Your task to perform on an android device: turn off location history Image 0: 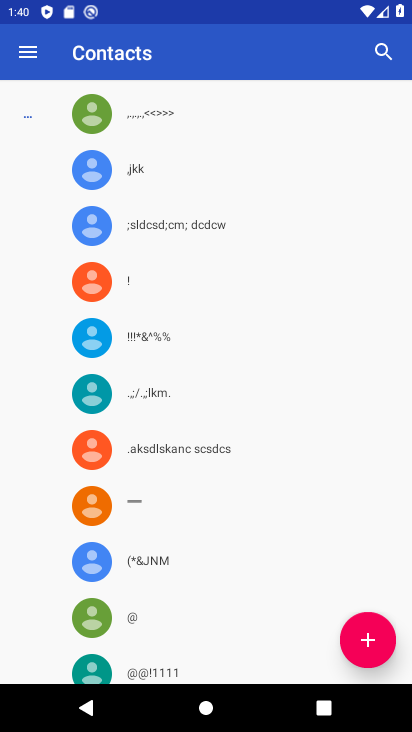
Step 0: press home button
Your task to perform on an android device: turn off location history Image 1: 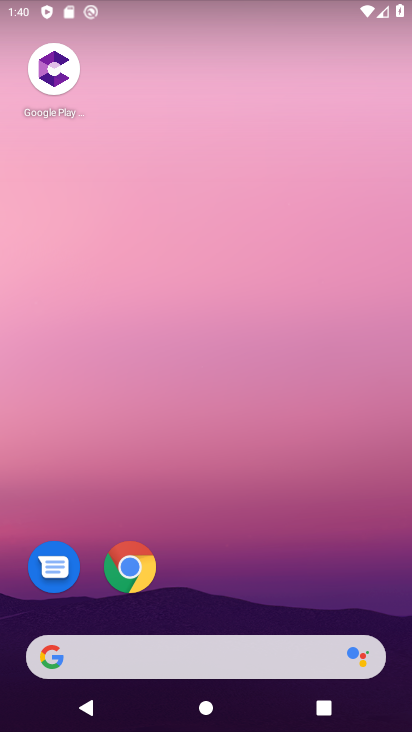
Step 1: drag from (219, 611) to (268, 209)
Your task to perform on an android device: turn off location history Image 2: 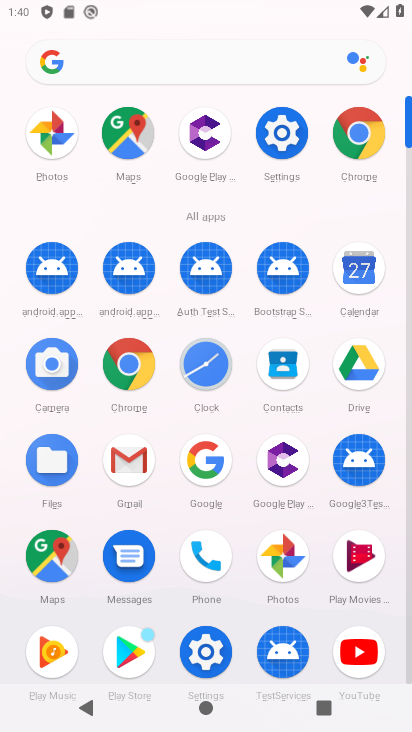
Step 2: click (280, 145)
Your task to perform on an android device: turn off location history Image 3: 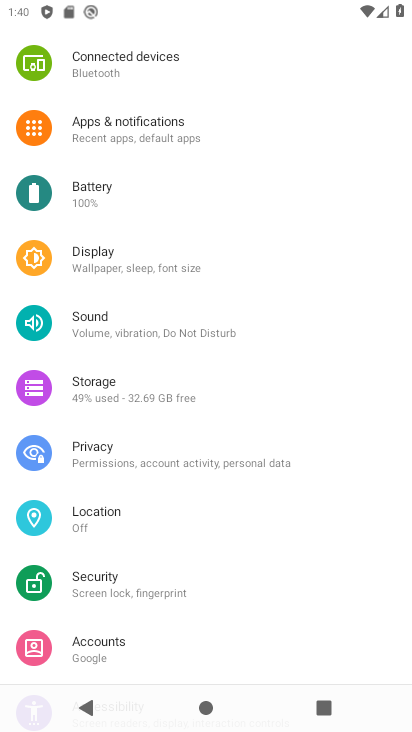
Step 3: press home button
Your task to perform on an android device: turn off location history Image 4: 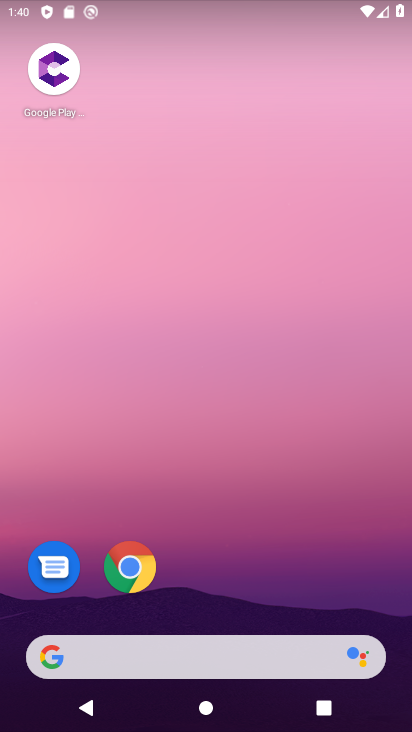
Step 4: drag from (234, 616) to (208, 125)
Your task to perform on an android device: turn off location history Image 5: 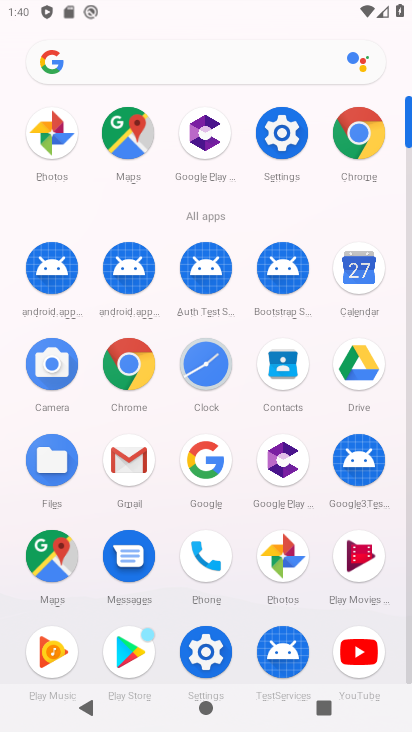
Step 5: click (125, 142)
Your task to perform on an android device: turn off location history Image 6: 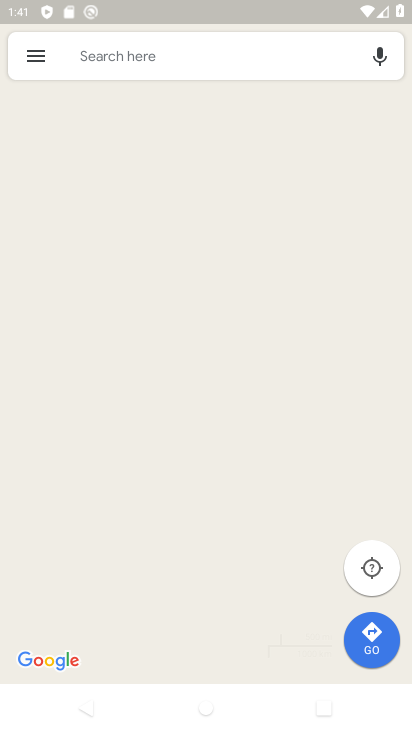
Step 6: click (31, 53)
Your task to perform on an android device: turn off location history Image 7: 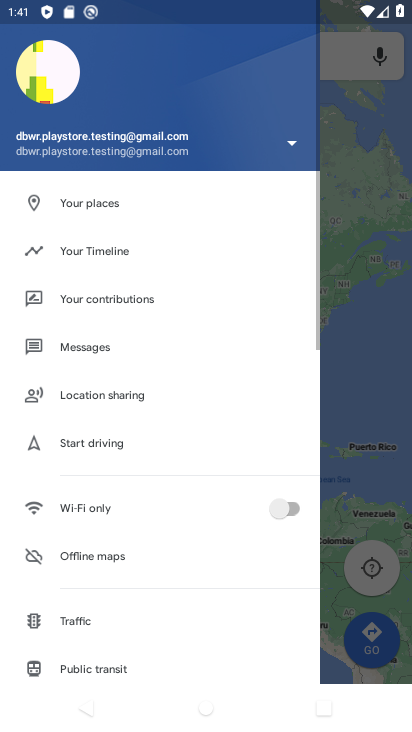
Step 7: click (109, 249)
Your task to perform on an android device: turn off location history Image 8: 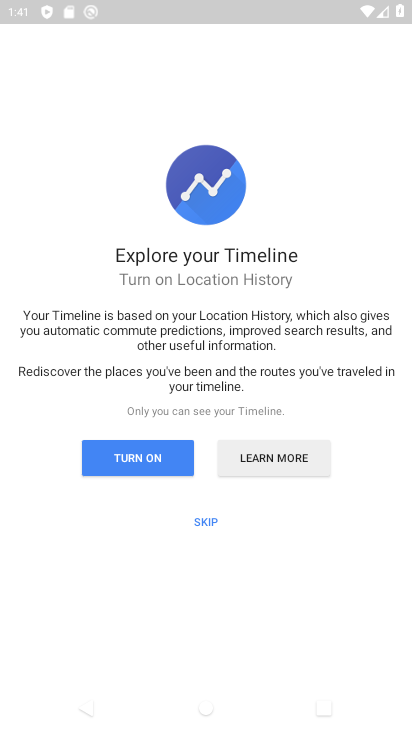
Step 8: click (200, 518)
Your task to perform on an android device: turn off location history Image 9: 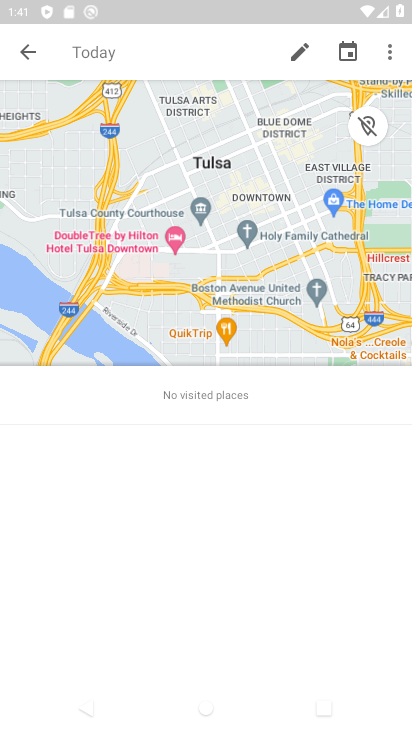
Step 9: click (389, 51)
Your task to perform on an android device: turn off location history Image 10: 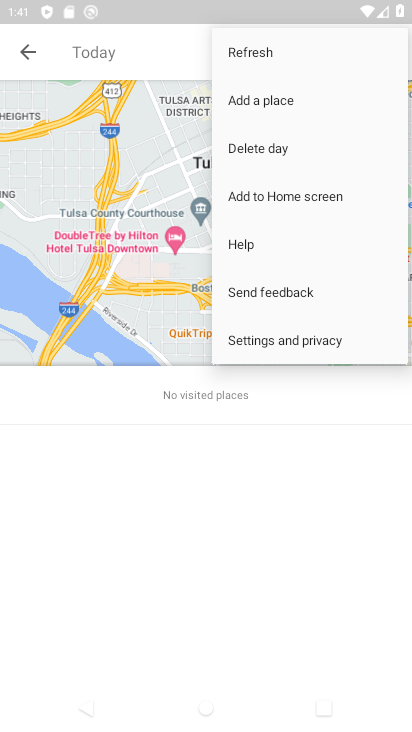
Step 10: click (281, 344)
Your task to perform on an android device: turn off location history Image 11: 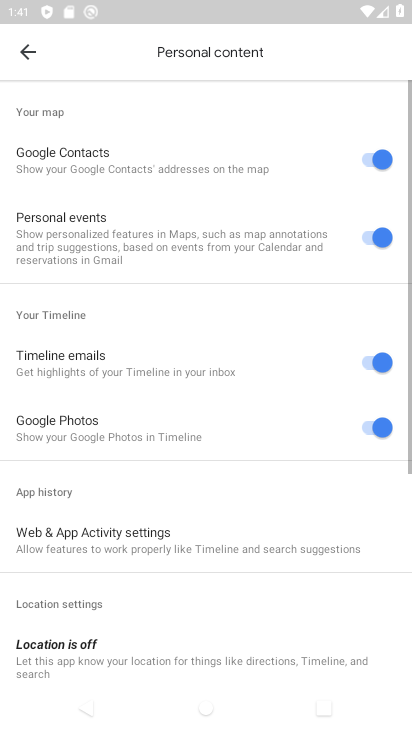
Step 11: drag from (211, 609) to (204, 345)
Your task to perform on an android device: turn off location history Image 12: 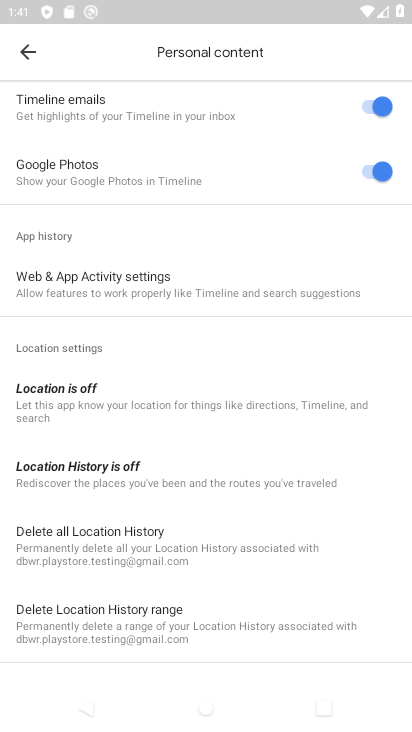
Step 12: click (207, 473)
Your task to perform on an android device: turn off location history Image 13: 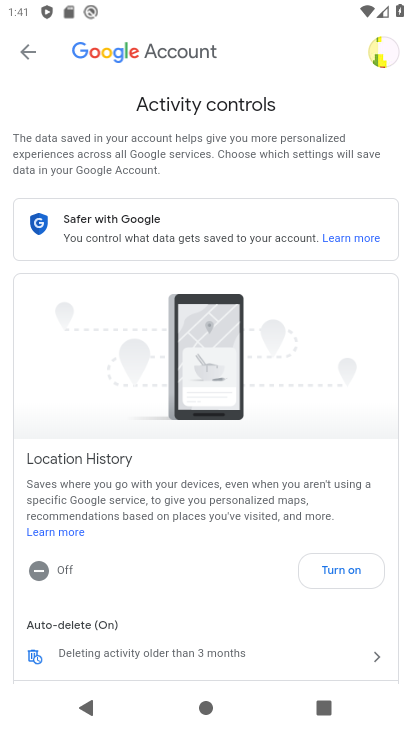
Step 13: task complete